Your task to perform on an android device: stop showing notifications on the lock screen Image 0: 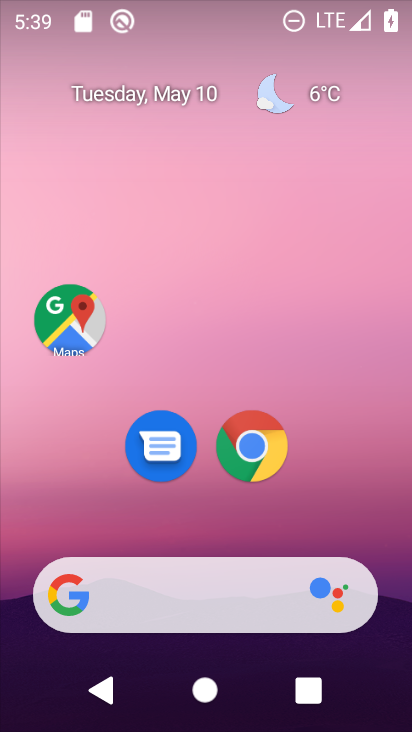
Step 0: drag from (221, 373) to (197, 25)
Your task to perform on an android device: stop showing notifications on the lock screen Image 1: 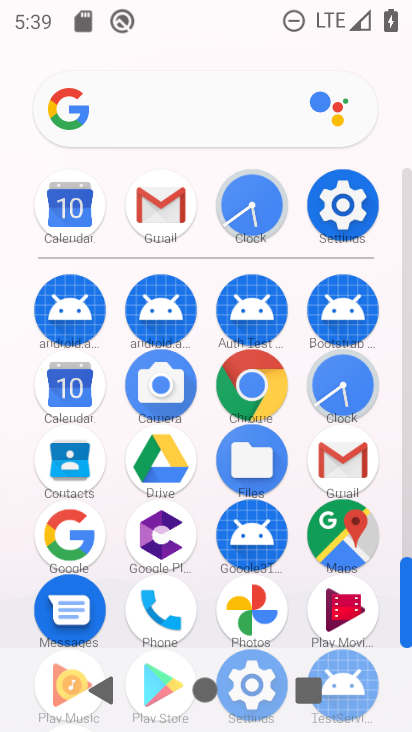
Step 1: click (345, 198)
Your task to perform on an android device: stop showing notifications on the lock screen Image 2: 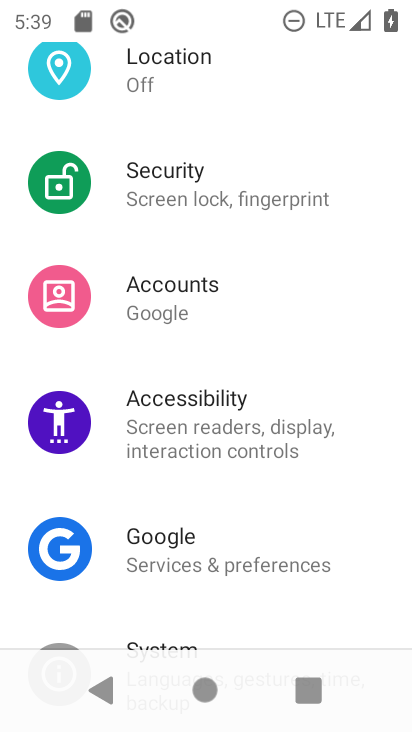
Step 2: drag from (254, 144) to (205, 630)
Your task to perform on an android device: stop showing notifications on the lock screen Image 3: 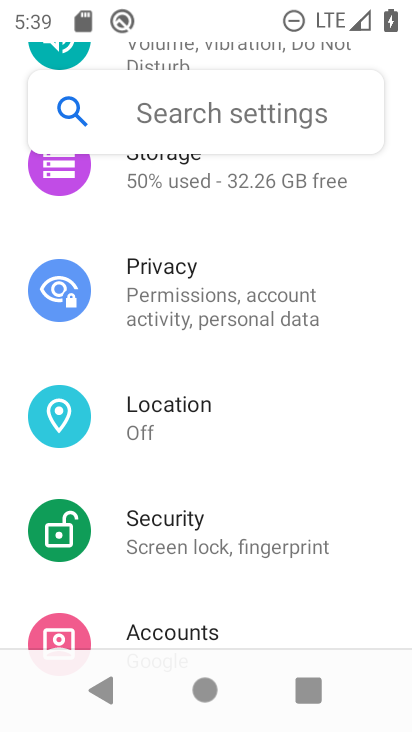
Step 3: drag from (239, 225) to (200, 667)
Your task to perform on an android device: stop showing notifications on the lock screen Image 4: 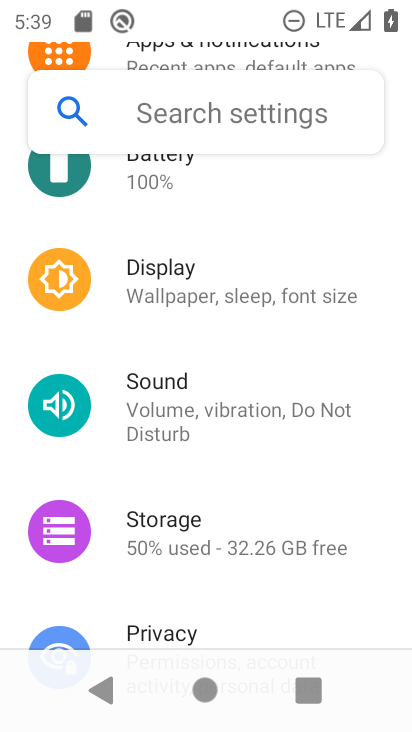
Step 4: drag from (240, 245) to (205, 630)
Your task to perform on an android device: stop showing notifications on the lock screen Image 5: 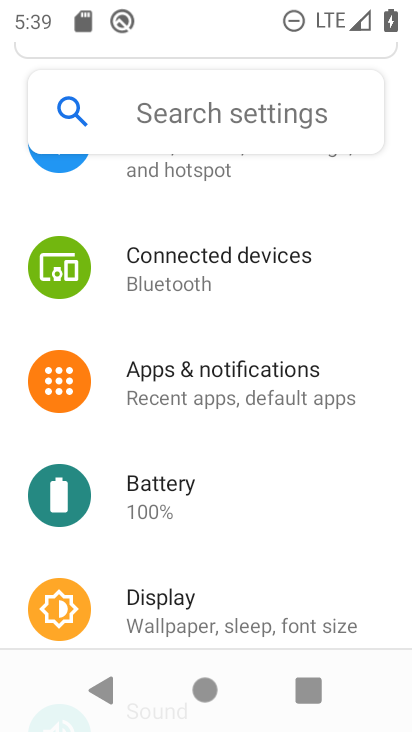
Step 5: click (205, 373)
Your task to perform on an android device: stop showing notifications on the lock screen Image 6: 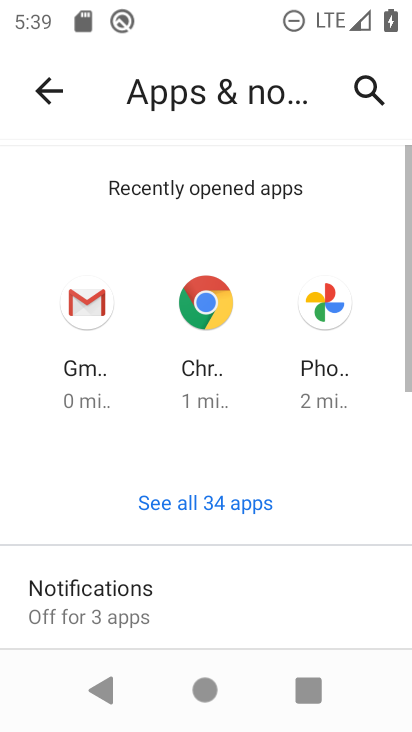
Step 6: drag from (217, 576) to (246, 325)
Your task to perform on an android device: stop showing notifications on the lock screen Image 7: 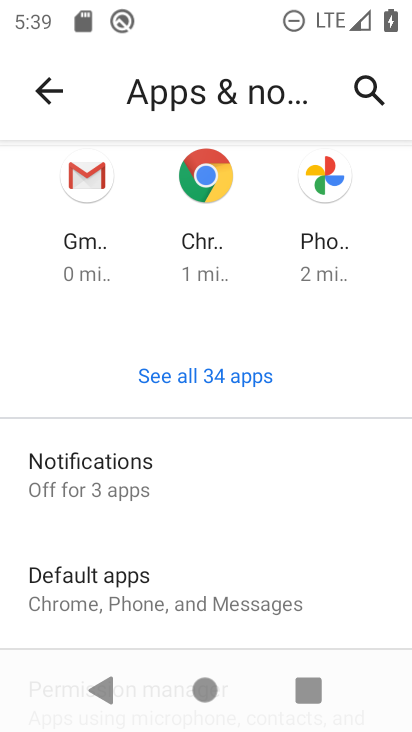
Step 7: click (188, 482)
Your task to perform on an android device: stop showing notifications on the lock screen Image 8: 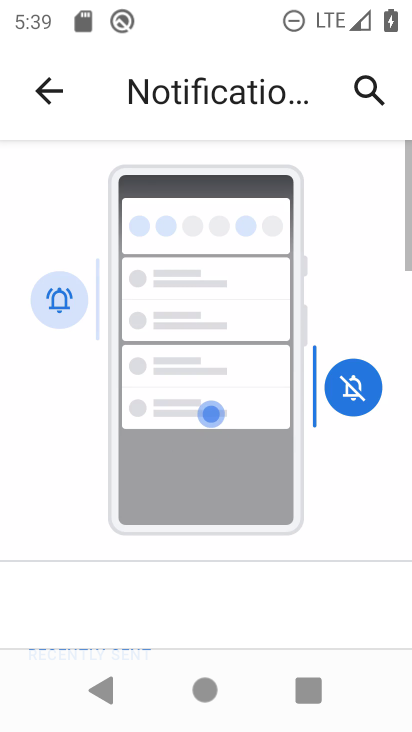
Step 8: drag from (219, 616) to (232, 187)
Your task to perform on an android device: stop showing notifications on the lock screen Image 9: 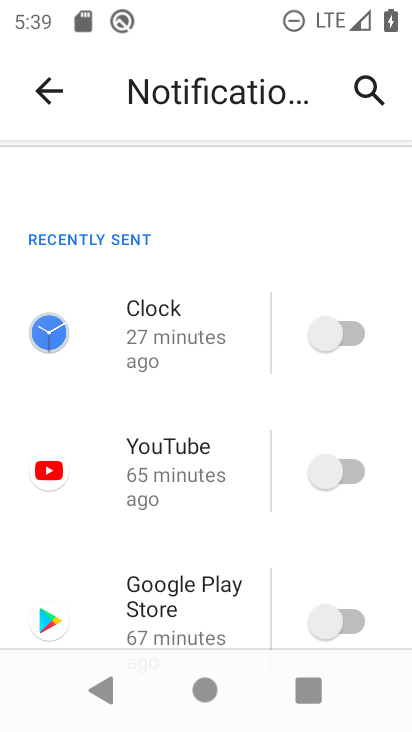
Step 9: drag from (204, 525) to (231, 162)
Your task to perform on an android device: stop showing notifications on the lock screen Image 10: 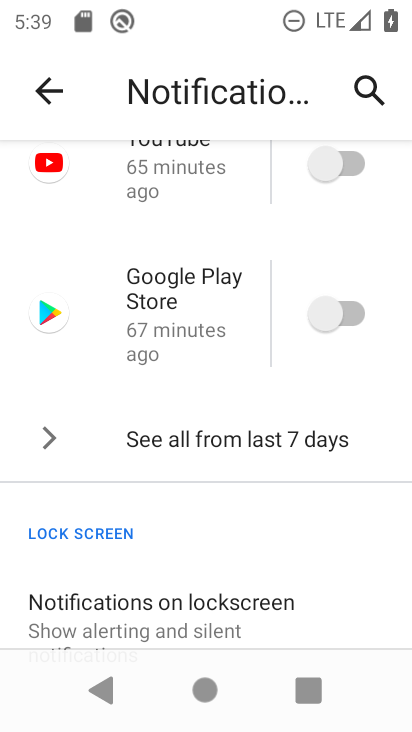
Step 10: drag from (184, 493) to (244, 214)
Your task to perform on an android device: stop showing notifications on the lock screen Image 11: 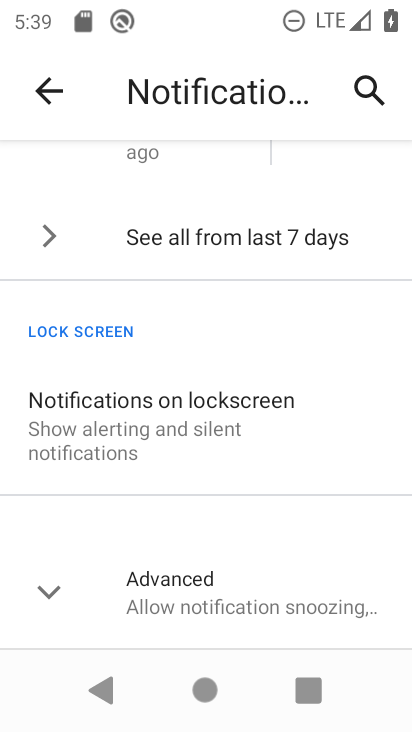
Step 11: click (227, 419)
Your task to perform on an android device: stop showing notifications on the lock screen Image 12: 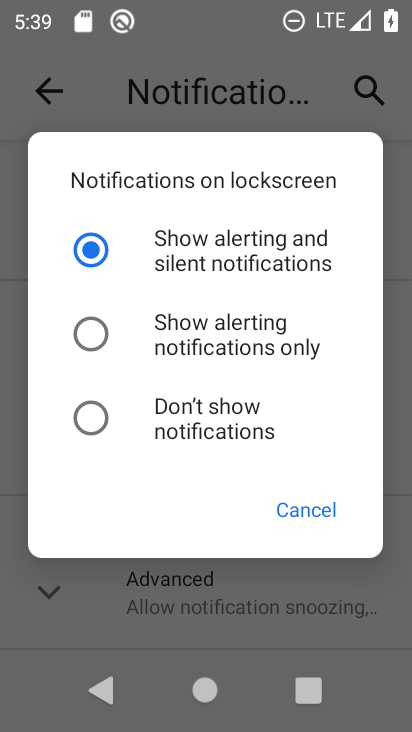
Step 12: click (194, 414)
Your task to perform on an android device: stop showing notifications on the lock screen Image 13: 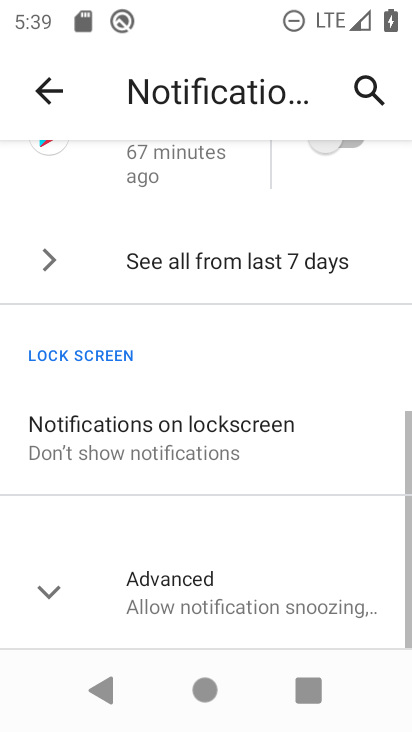
Step 13: task complete